Your task to perform on an android device: Open the stopwatch Image 0: 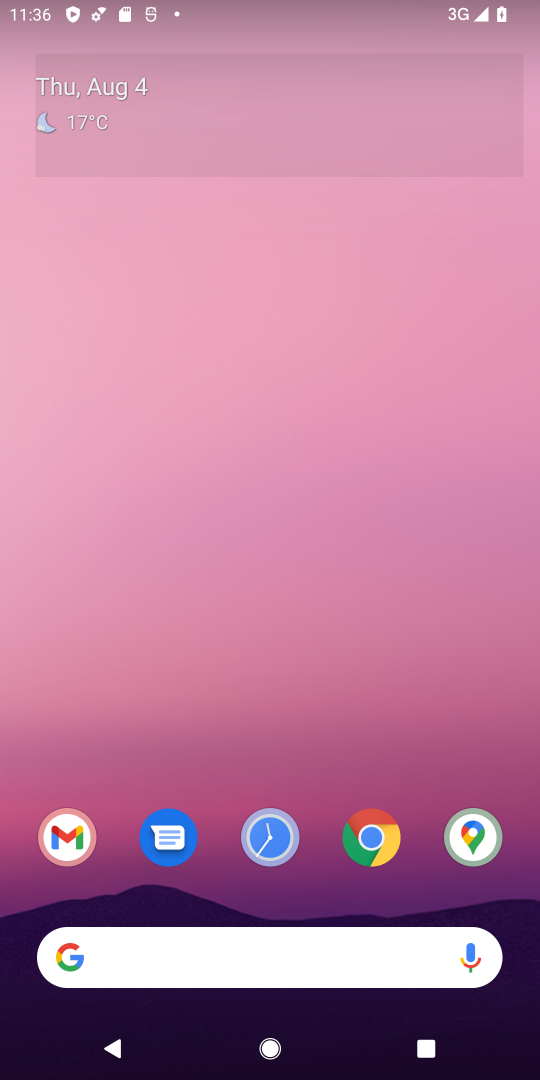
Step 0: drag from (426, 870) to (225, 86)
Your task to perform on an android device: Open the stopwatch Image 1: 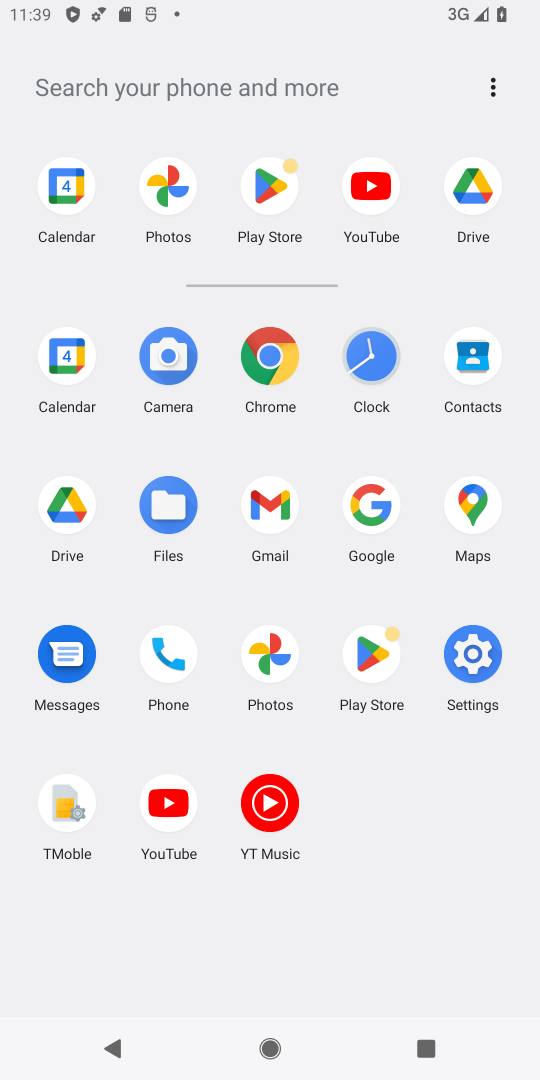
Step 1: click (368, 360)
Your task to perform on an android device: Open the stopwatch Image 2: 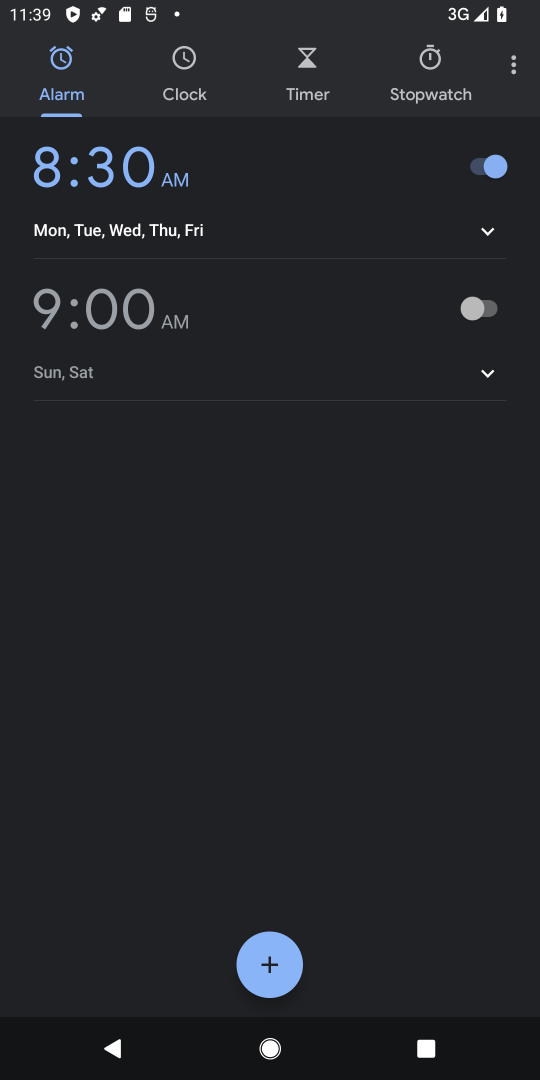
Step 2: click (423, 60)
Your task to perform on an android device: Open the stopwatch Image 3: 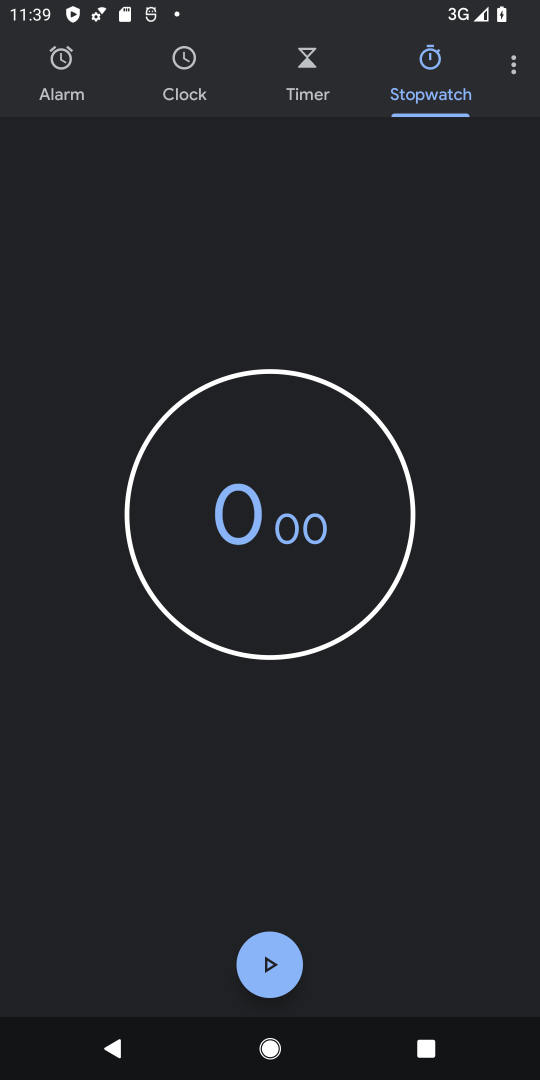
Step 3: task complete